Your task to perform on an android device: search for starred emails in the gmail app Image 0: 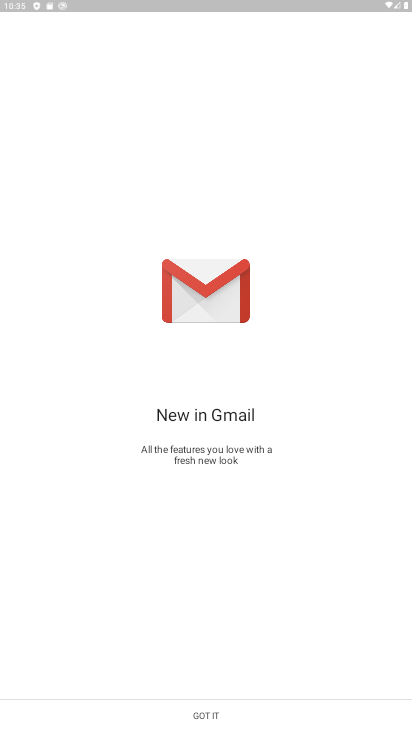
Step 0: press home button
Your task to perform on an android device: search for starred emails in the gmail app Image 1: 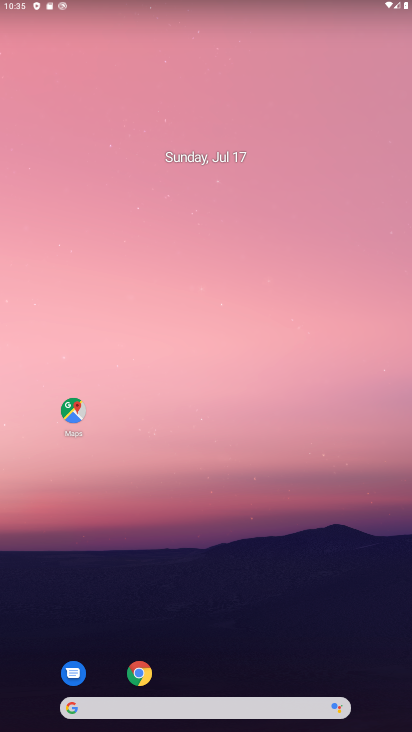
Step 1: drag from (173, 685) to (271, 210)
Your task to perform on an android device: search for starred emails in the gmail app Image 2: 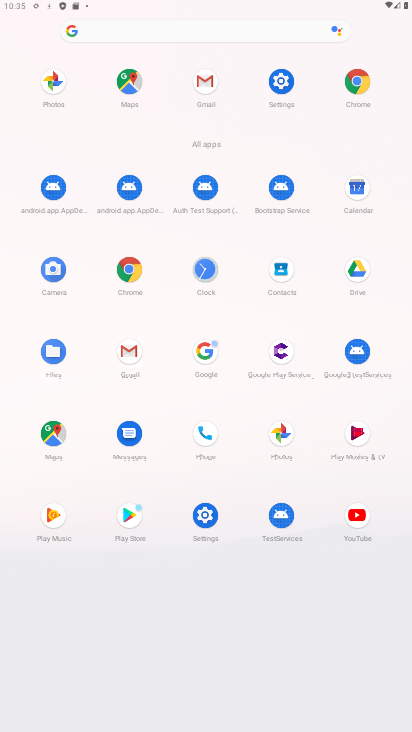
Step 2: click (125, 353)
Your task to perform on an android device: search for starred emails in the gmail app Image 3: 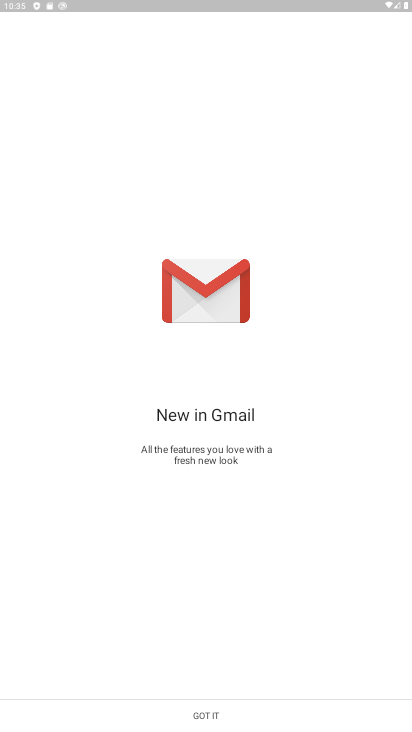
Step 3: click (199, 714)
Your task to perform on an android device: search for starred emails in the gmail app Image 4: 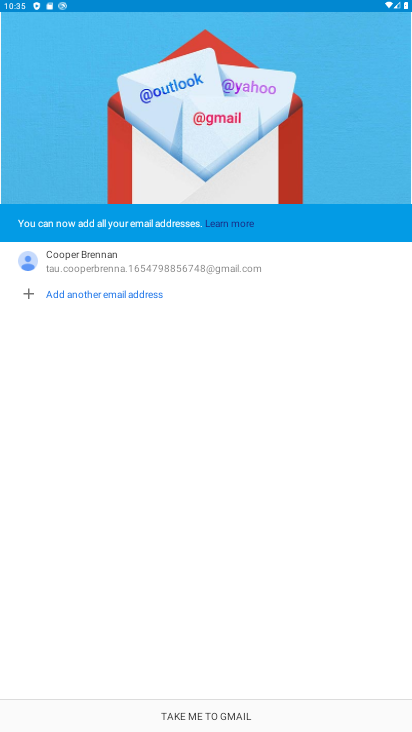
Step 4: click (216, 719)
Your task to perform on an android device: search for starred emails in the gmail app Image 5: 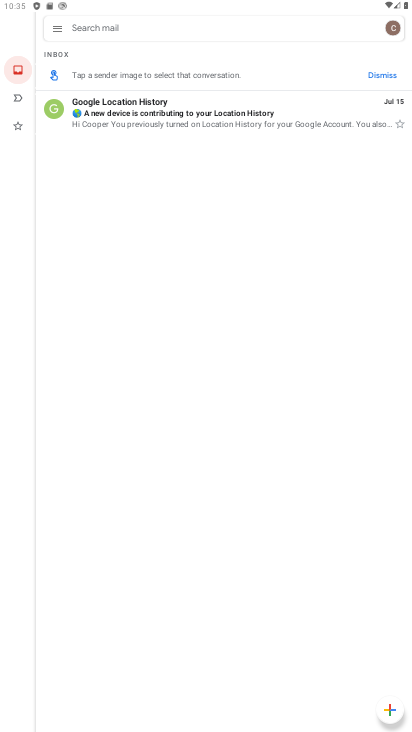
Step 5: click (59, 28)
Your task to perform on an android device: search for starred emails in the gmail app Image 6: 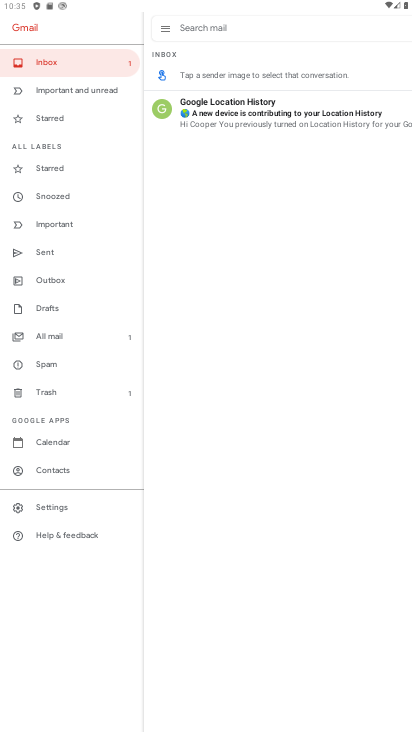
Step 6: click (76, 121)
Your task to perform on an android device: search for starred emails in the gmail app Image 7: 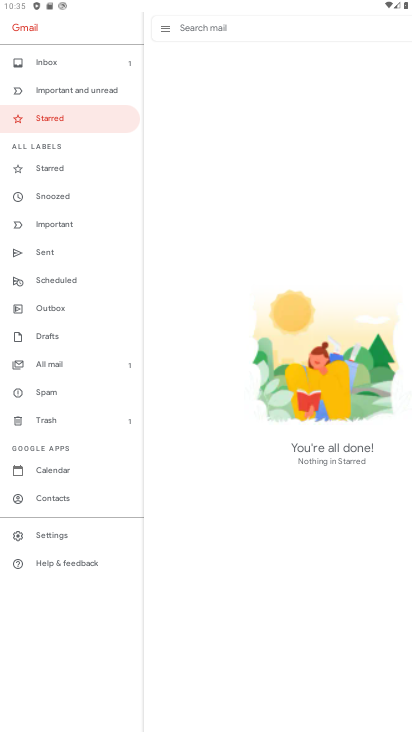
Step 7: task complete